Your task to perform on an android device: install app "WhatsApp Messenger" Image 0: 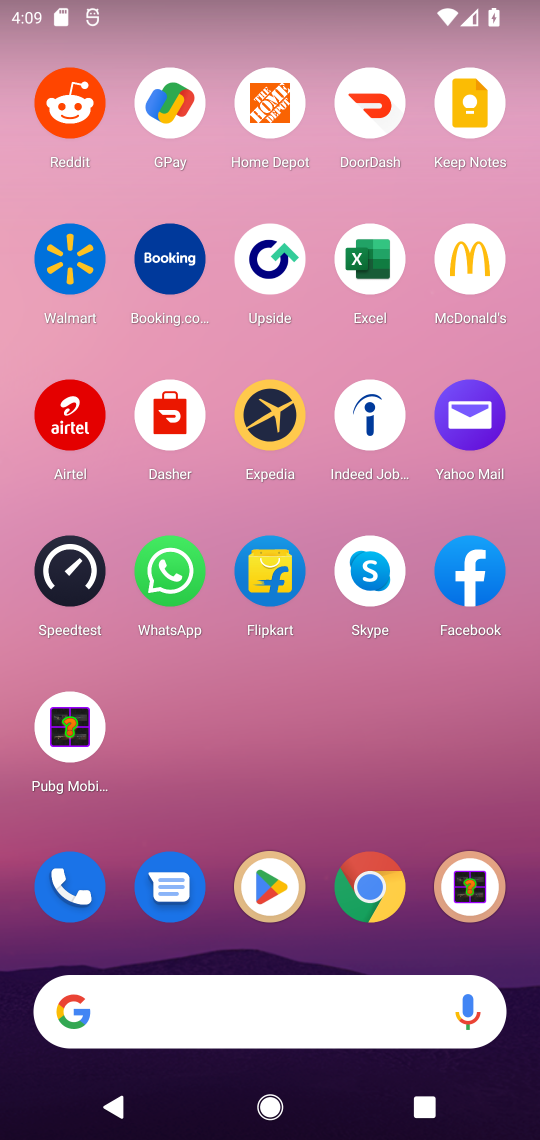
Step 0: click (262, 884)
Your task to perform on an android device: install app "WhatsApp Messenger" Image 1: 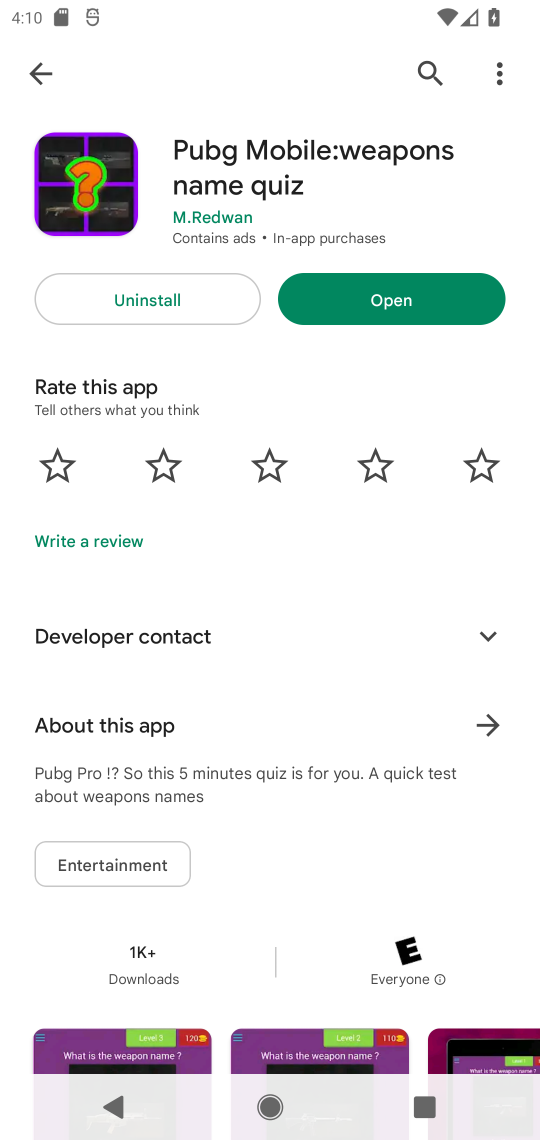
Step 1: click (31, 80)
Your task to perform on an android device: install app "WhatsApp Messenger" Image 2: 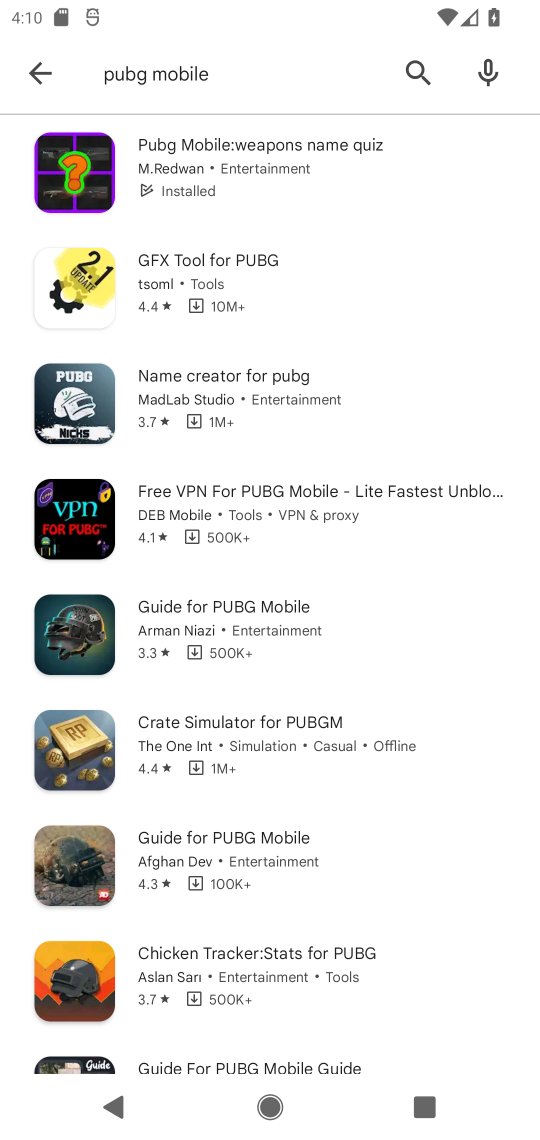
Step 2: click (37, 80)
Your task to perform on an android device: install app "WhatsApp Messenger" Image 3: 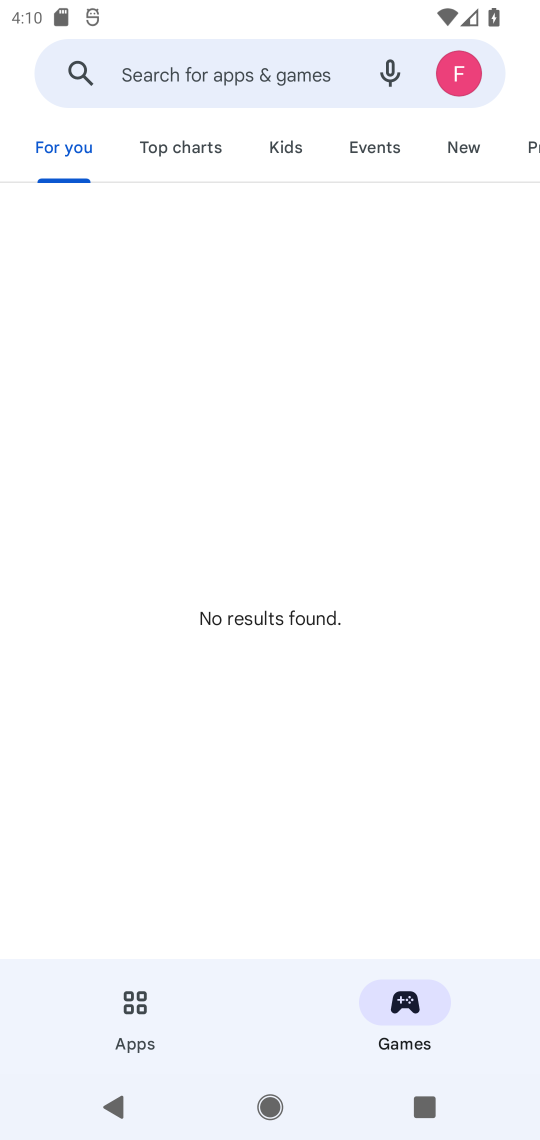
Step 3: click (165, 63)
Your task to perform on an android device: install app "WhatsApp Messenger" Image 4: 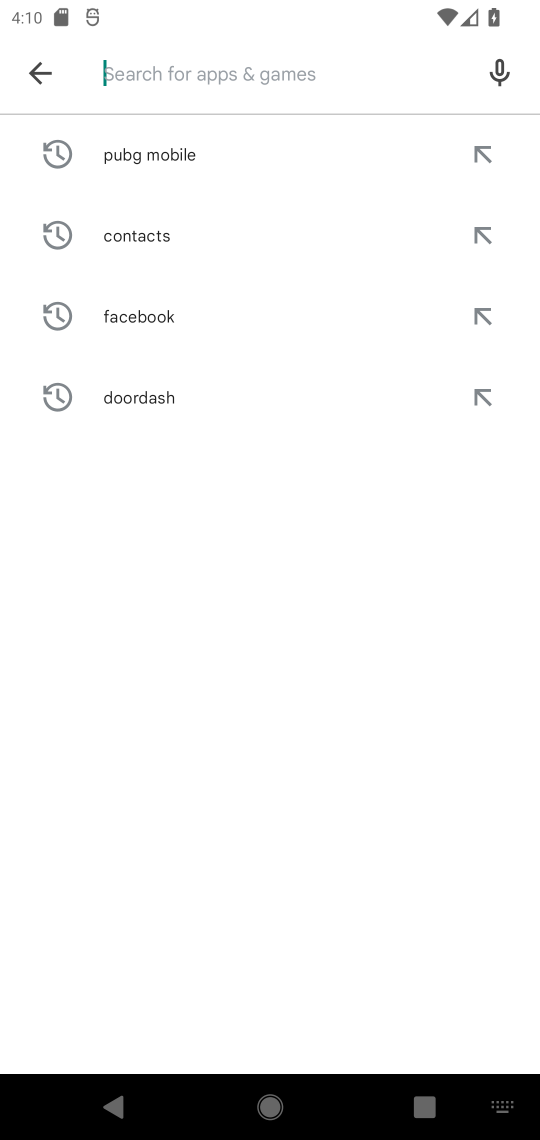
Step 4: type "WhatsApp Messenger"
Your task to perform on an android device: install app "WhatsApp Messenger" Image 5: 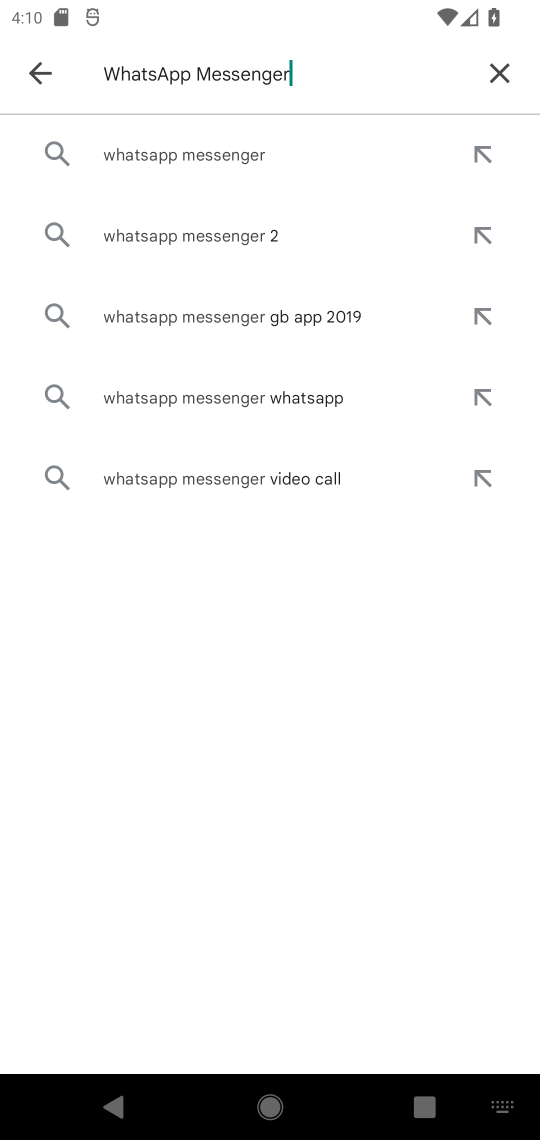
Step 5: click (183, 161)
Your task to perform on an android device: install app "WhatsApp Messenger" Image 6: 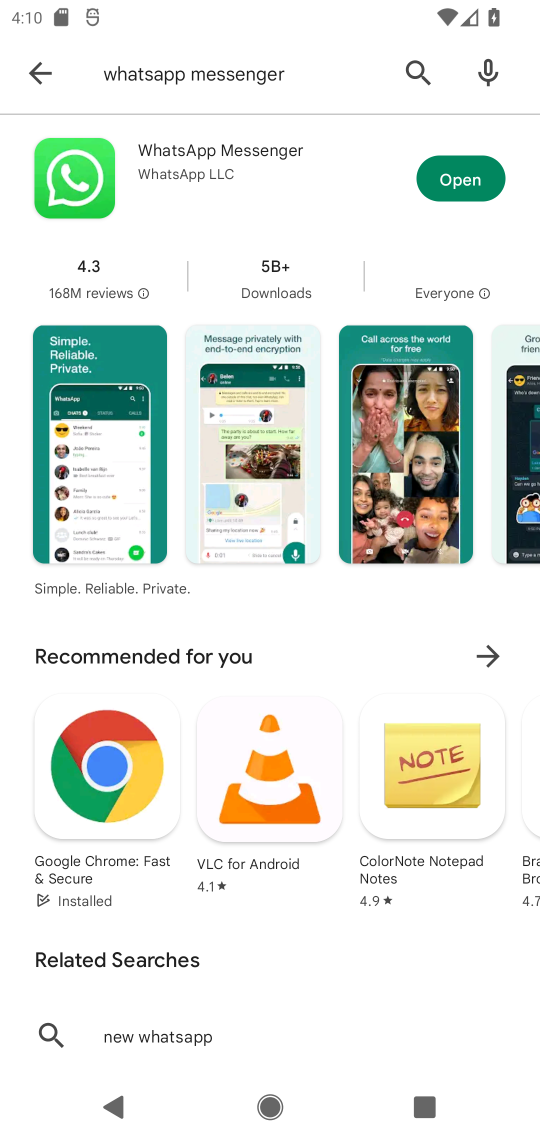
Step 6: click (454, 180)
Your task to perform on an android device: install app "WhatsApp Messenger" Image 7: 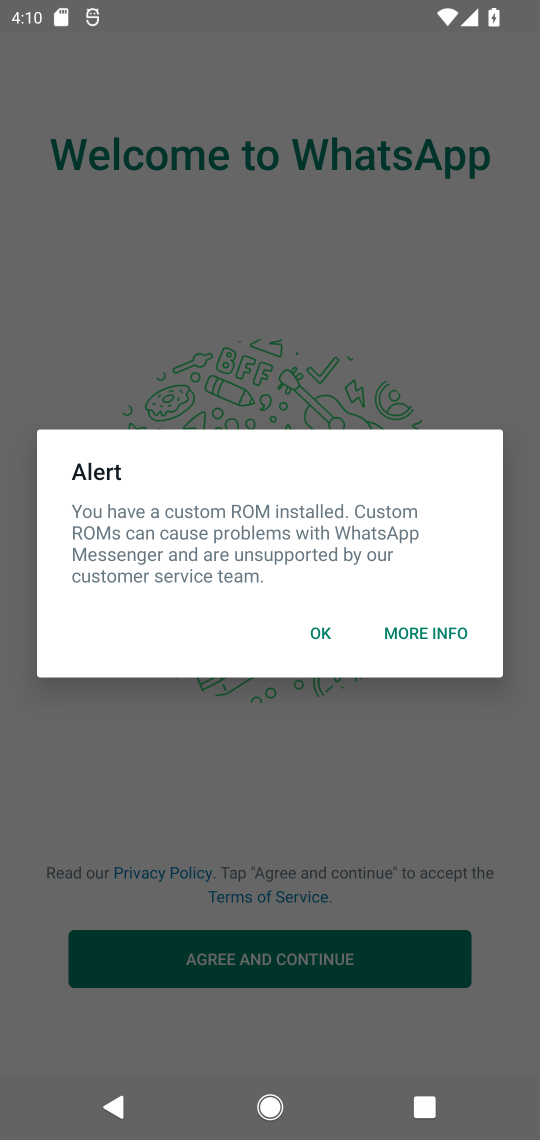
Step 7: click (317, 631)
Your task to perform on an android device: install app "WhatsApp Messenger" Image 8: 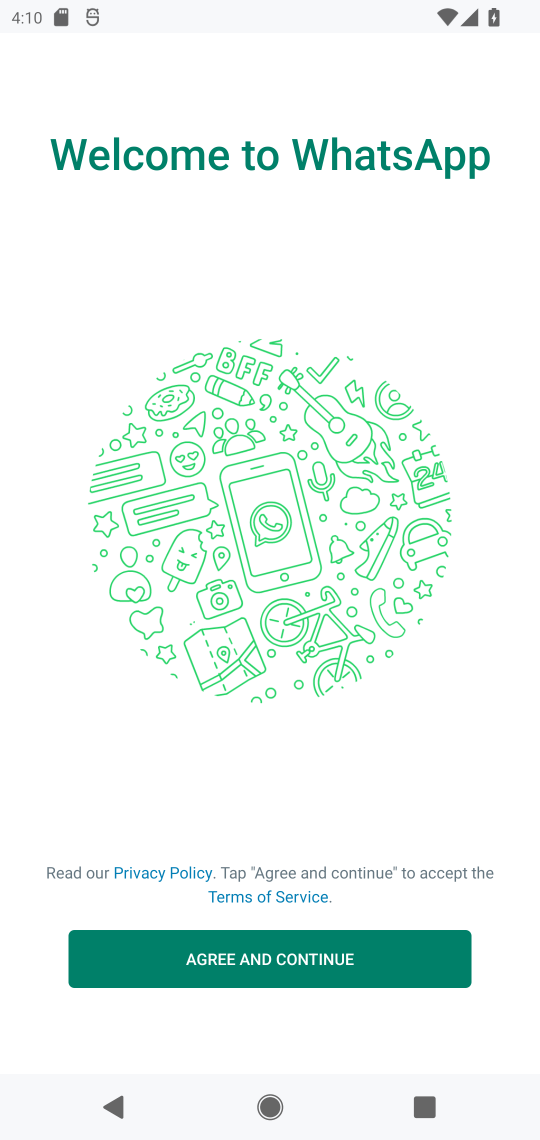
Step 8: task complete